Your task to perform on an android device: Search for lg ultragear on target.com, select the first entry, and add it to the cart. Image 0: 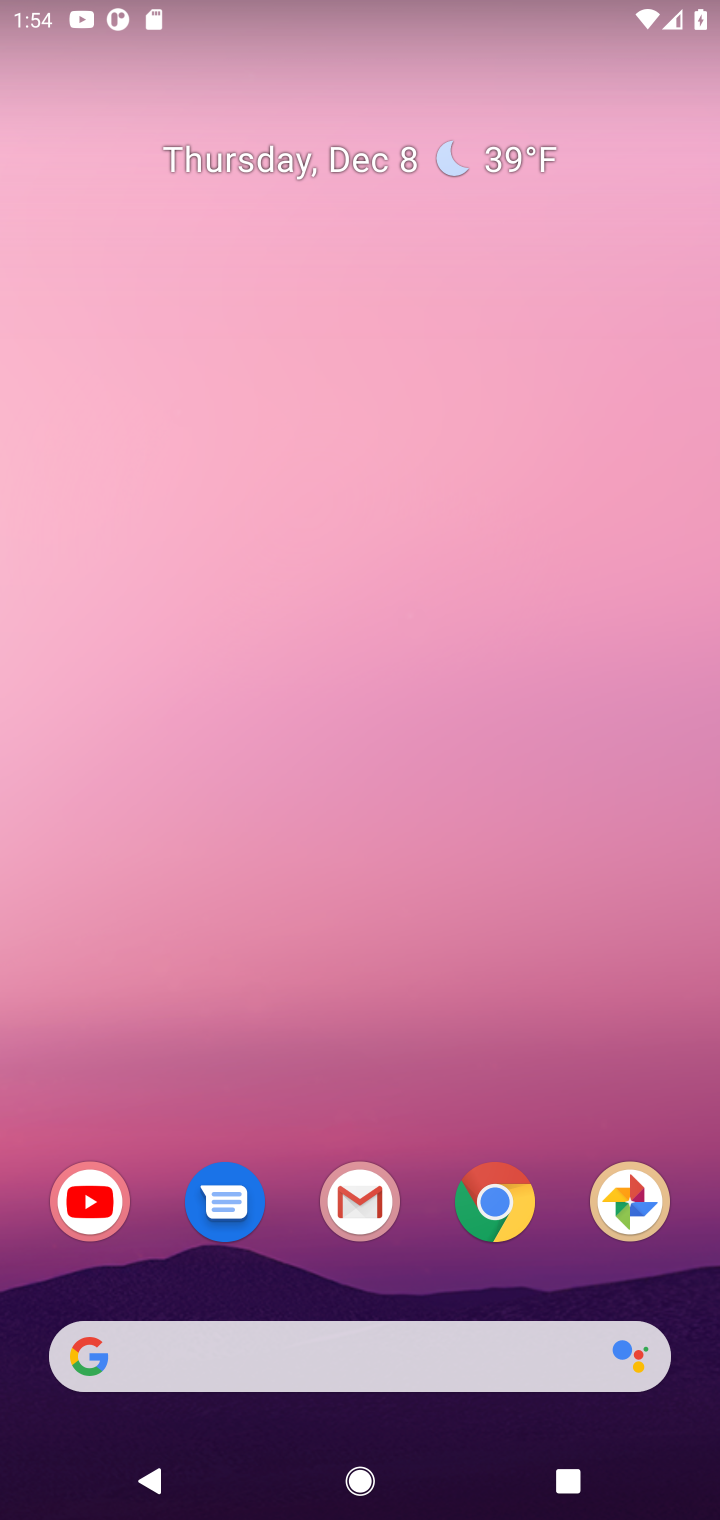
Step 0: click (501, 1172)
Your task to perform on an android device: Search for lg ultragear on target.com, select the first entry, and add it to the cart. Image 1: 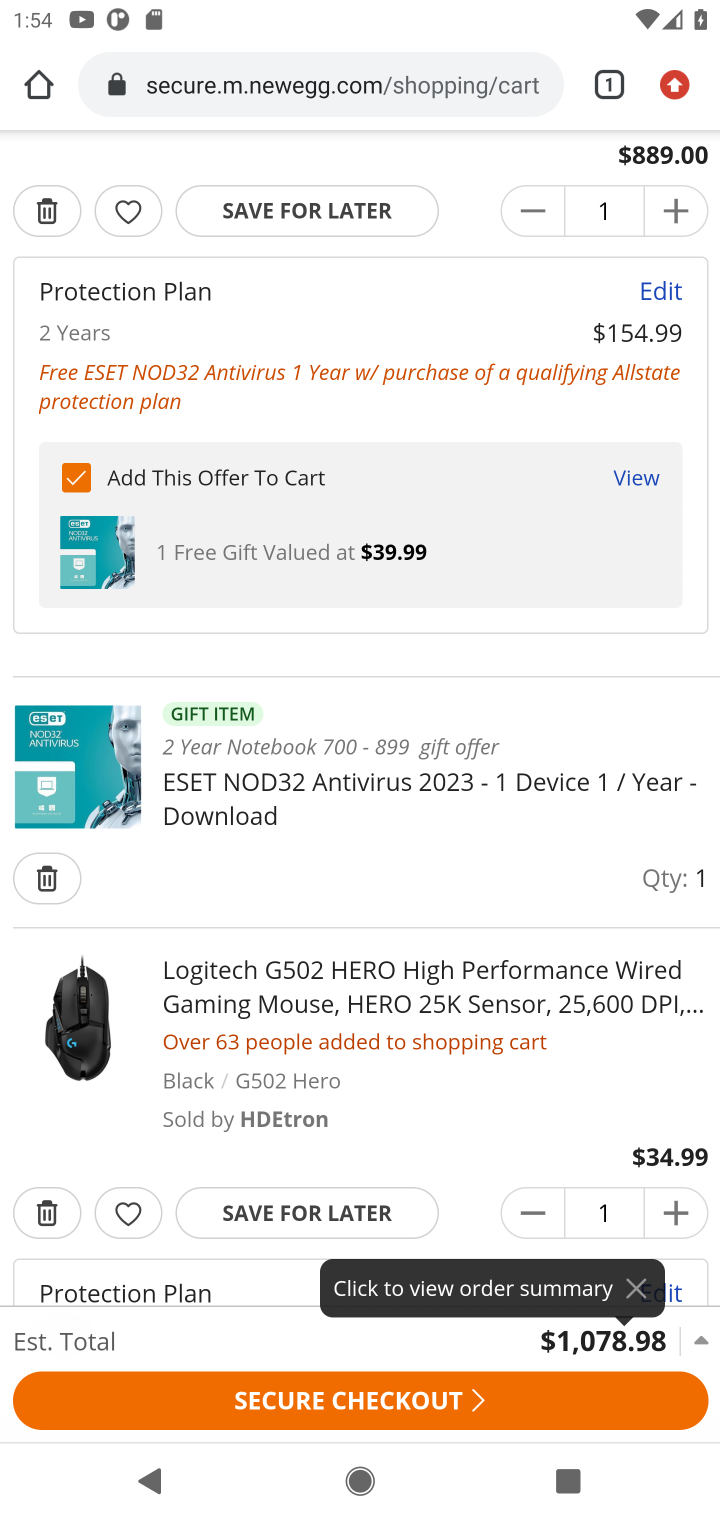
Step 1: click (384, 67)
Your task to perform on an android device: Search for lg ultragear on target.com, select the first entry, and add it to the cart. Image 2: 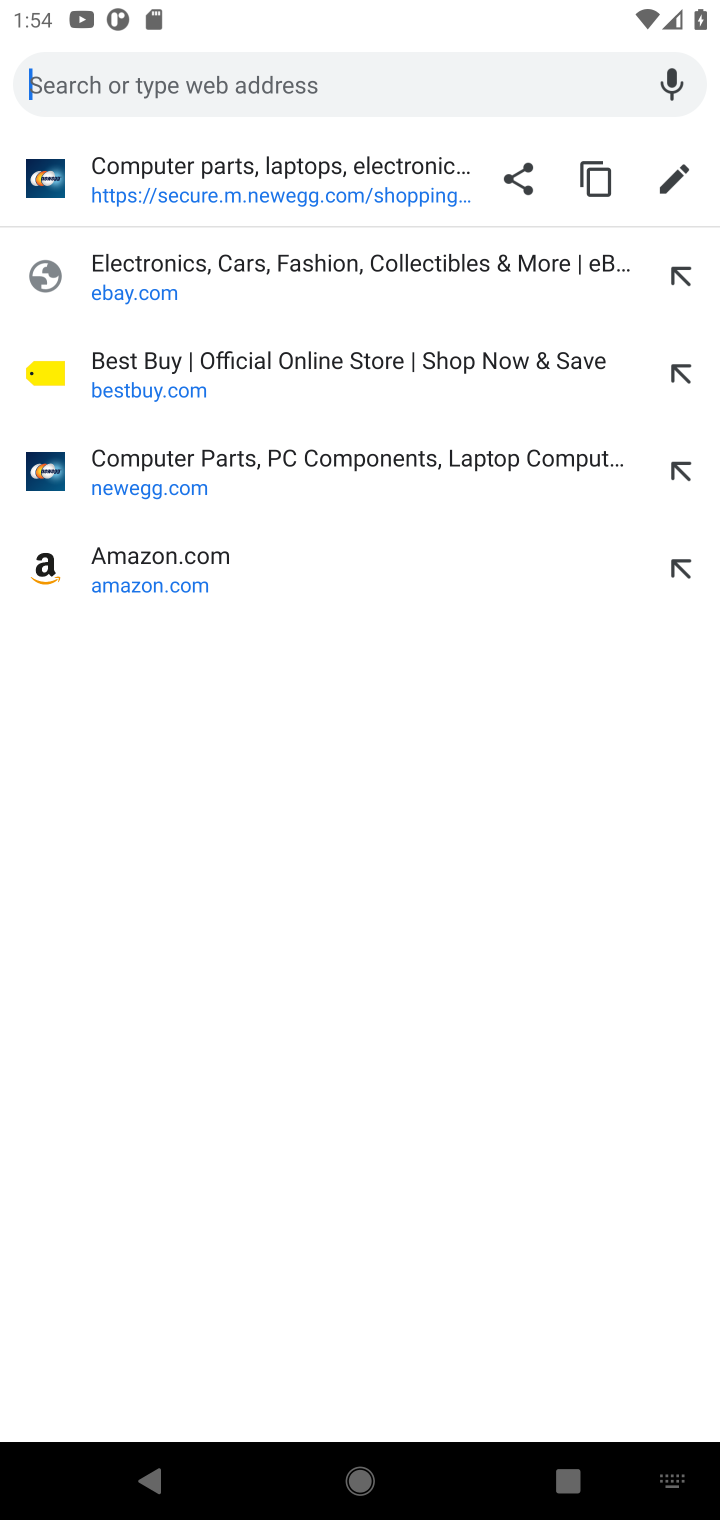
Step 2: type "target.com"
Your task to perform on an android device: Search for lg ultragear on target.com, select the first entry, and add it to the cart. Image 3: 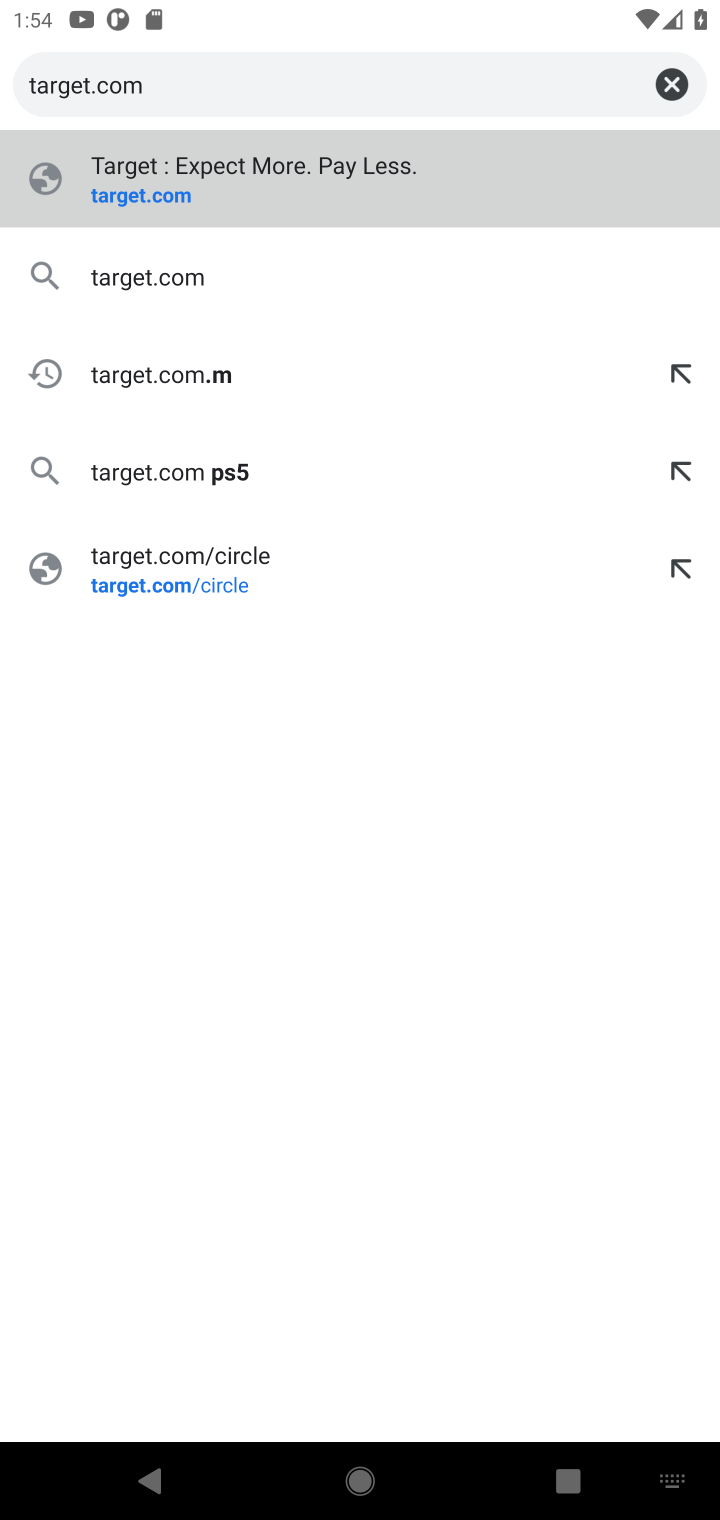
Step 3: press enter
Your task to perform on an android device: Search for lg ultragear on target.com, select the first entry, and add it to the cart. Image 4: 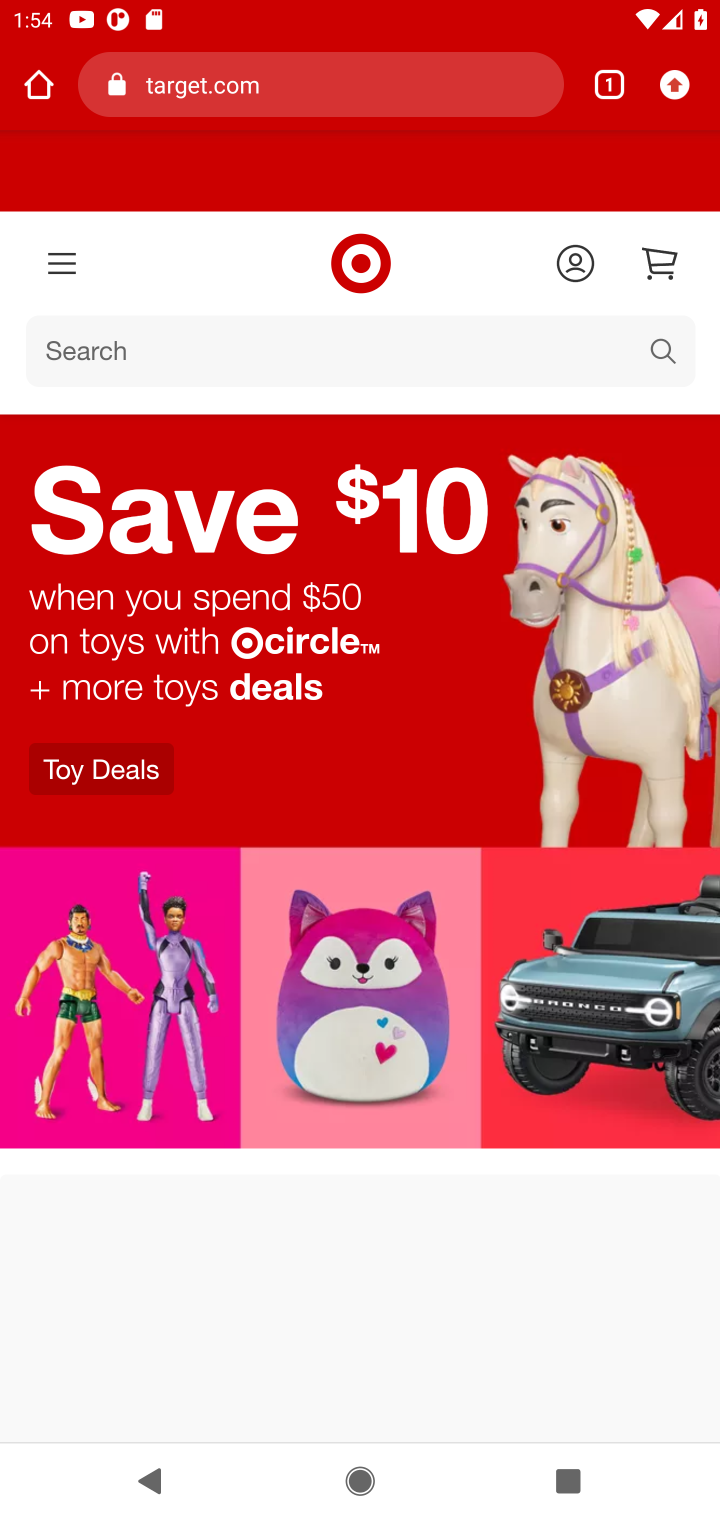
Step 4: click (662, 348)
Your task to perform on an android device: Search for lg ultragear on target.com, select the first entry, and add it to the cart. Image 5: 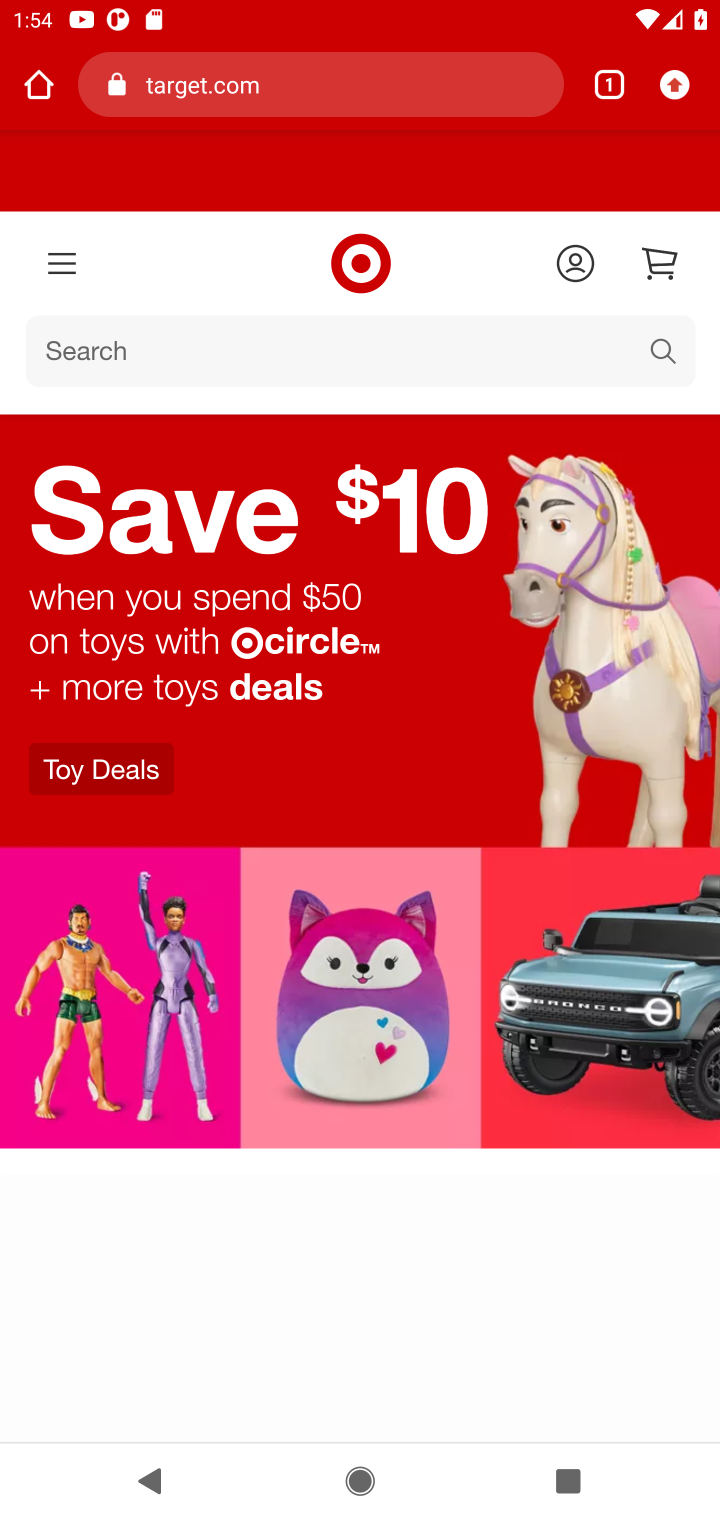
Step 5: type " lg ultragear"
Your task to perform on an android device: Search for lg ultragear on target.com, select the first entry, and add it to the cart. Image 6: 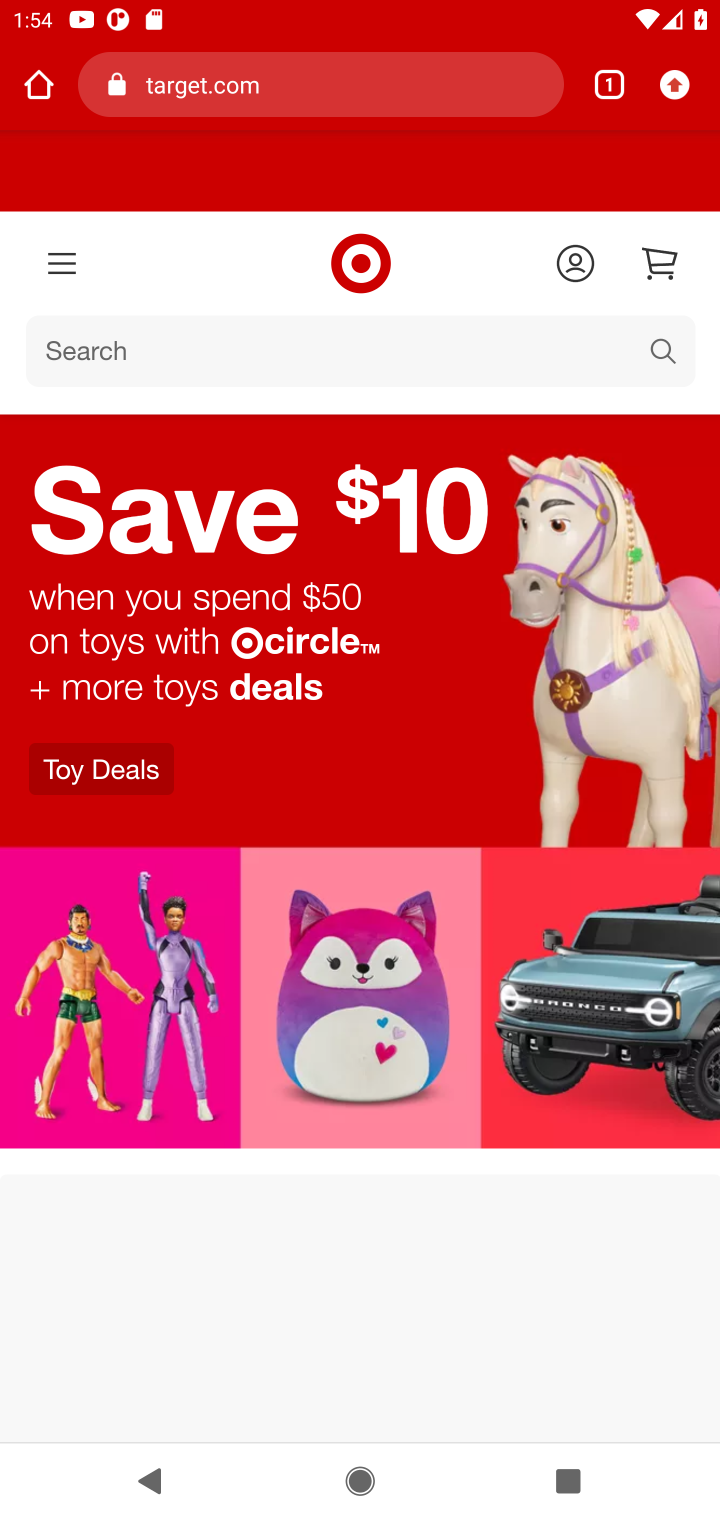
Step 6: press enter
Your task to perform on an android device: Search for lg ultragear on target.com, select the first entry, and add it to the cart. Image 7: 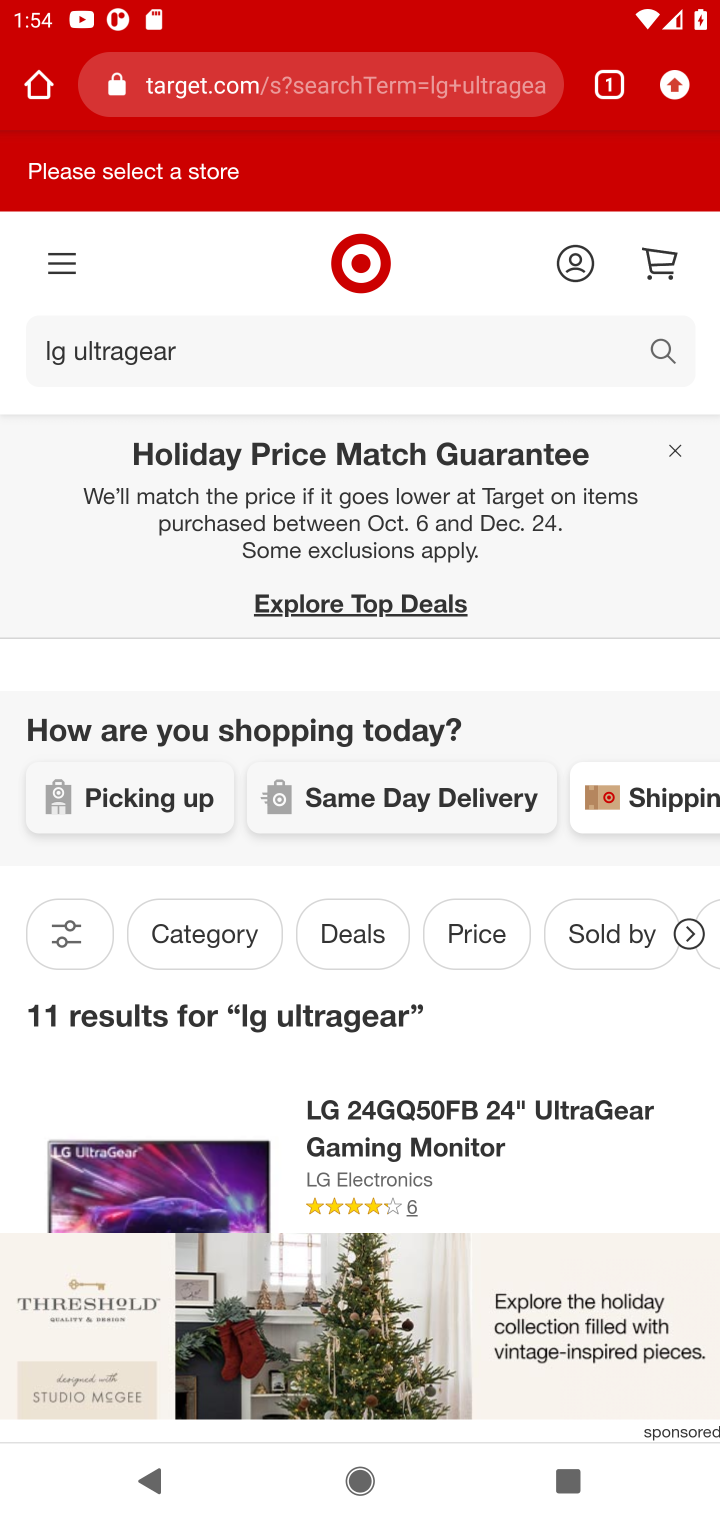
Step 7: drag from (440, 1160) to (411, 624)
Your task to perform on an android device: Search for lg ultragear on target.com, select the first entry, and add it to the cart. Image 8: 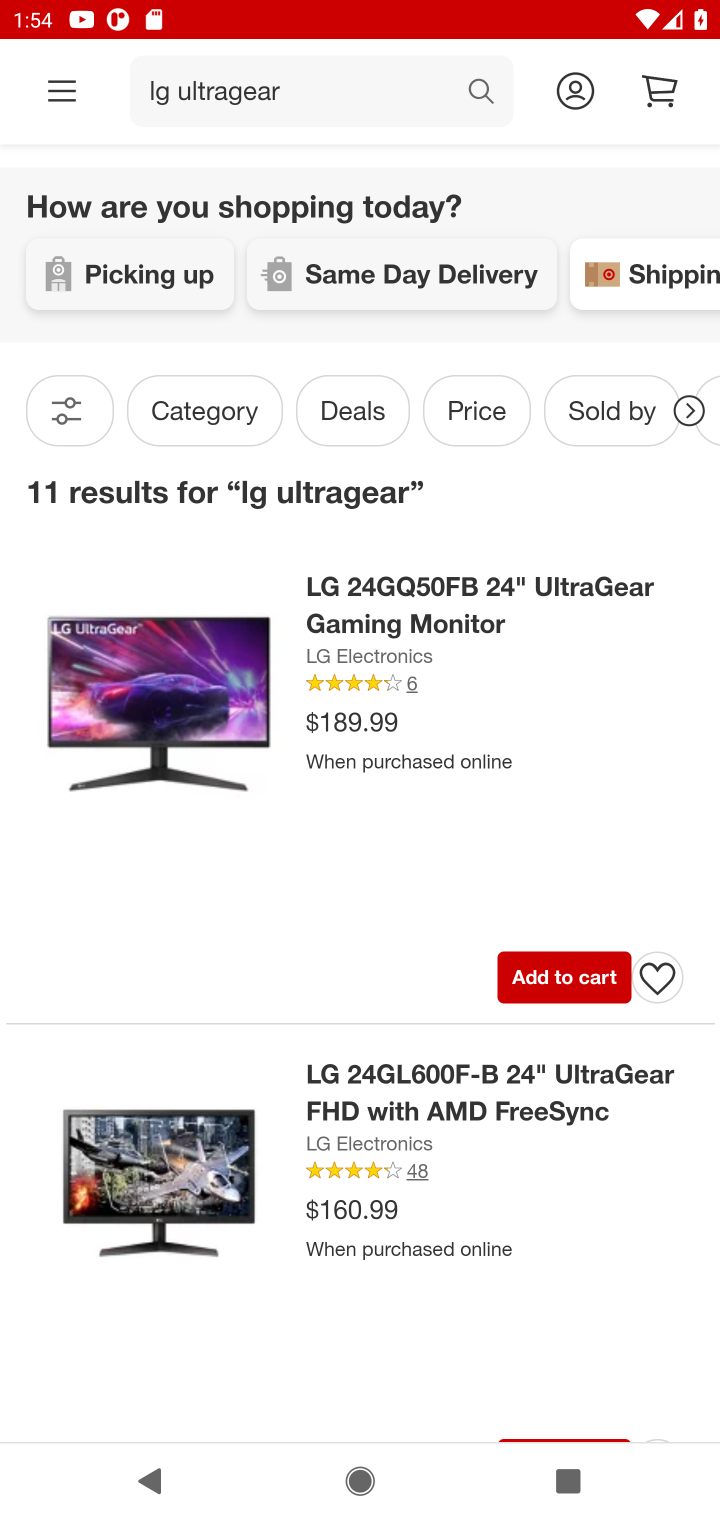
Step 8: click (153, 679)
Your task to perform on an android device: Search for lg ultragear on target.com, select the first entry, and add it to the cart. Image 9: 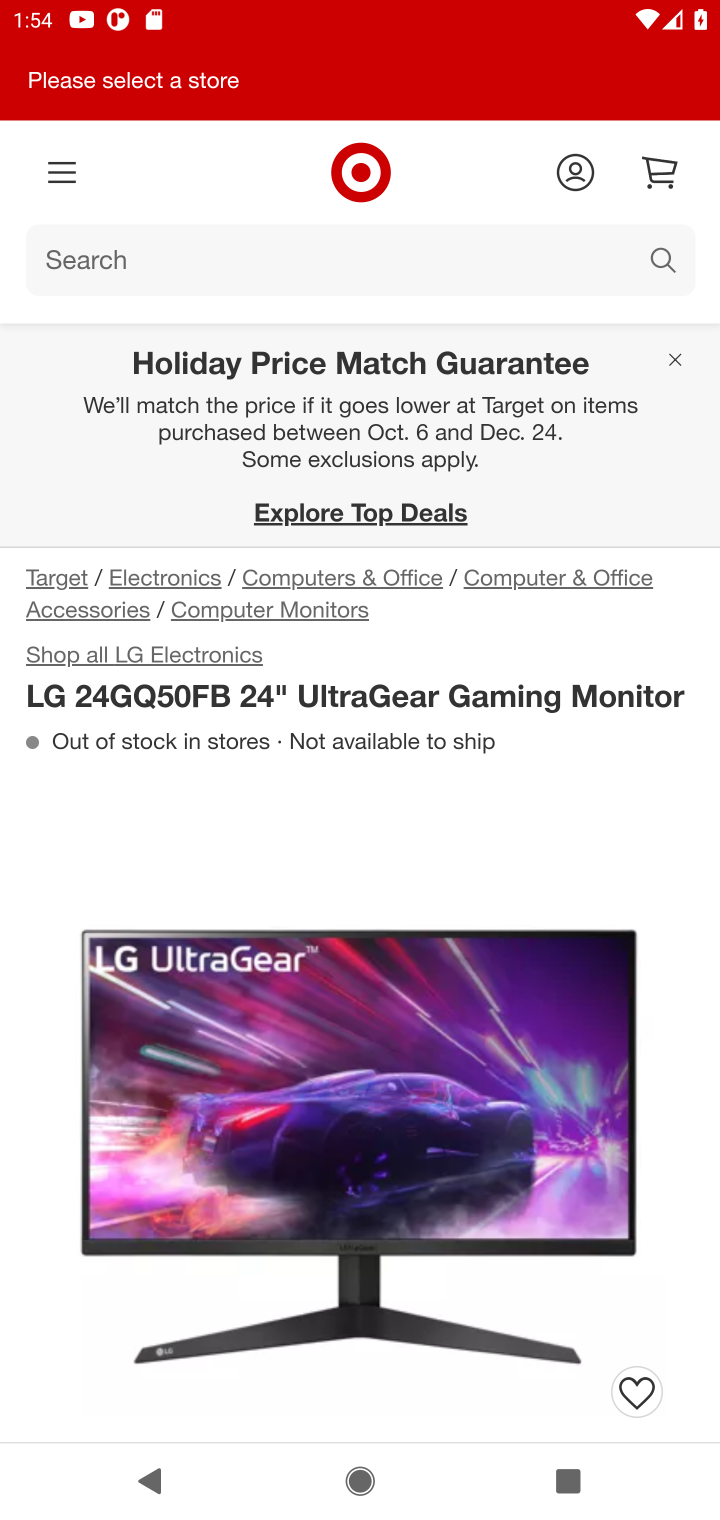
Step 9: drag from (481, 1090) to (522, 548)
Your task to perform on an android device: Search for lg ultragear on target.com, select the first entry, and add it to the cart. Image 10: 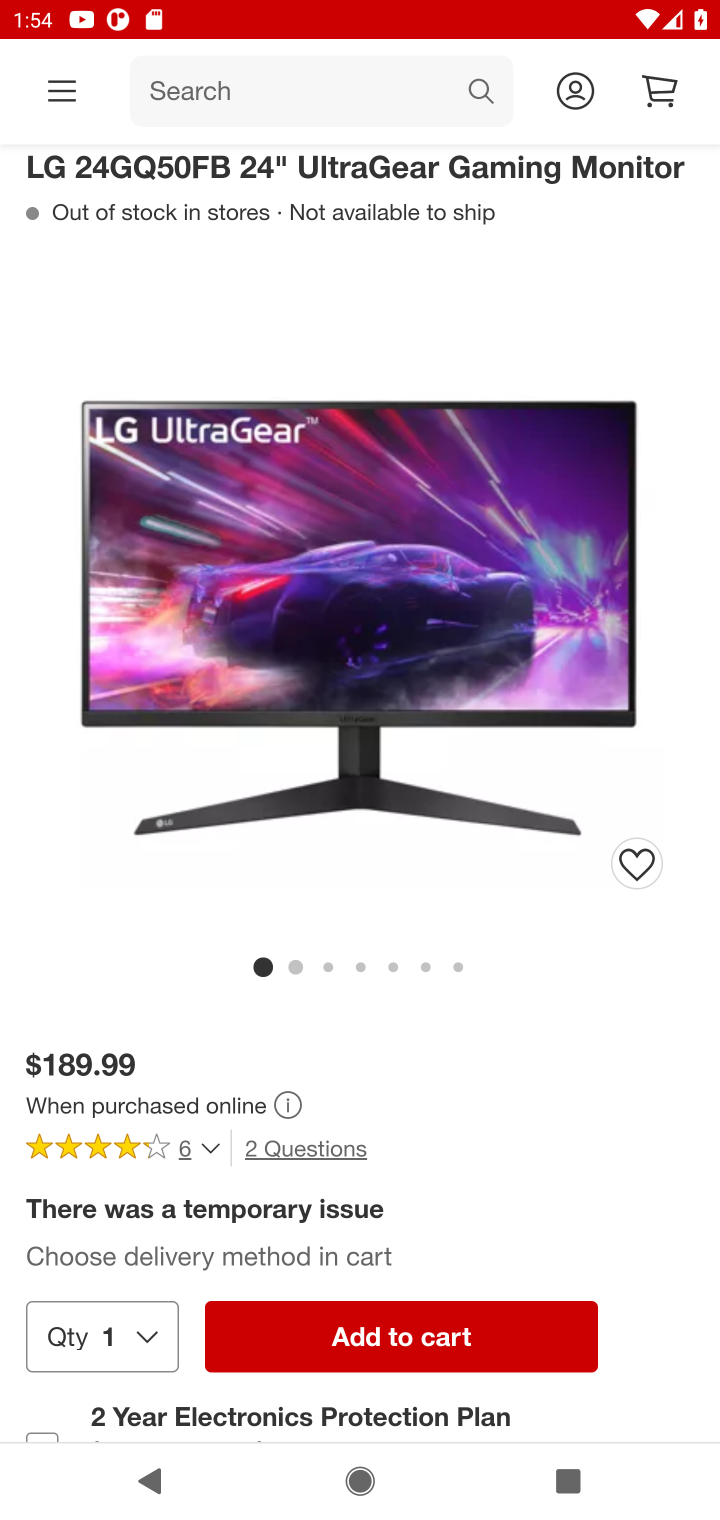
Step 10: click (452, 1335)
Your task to perform on an android device: Search for lg ultragear on target.com, select the first entry, and add it to the cart. Image 11: 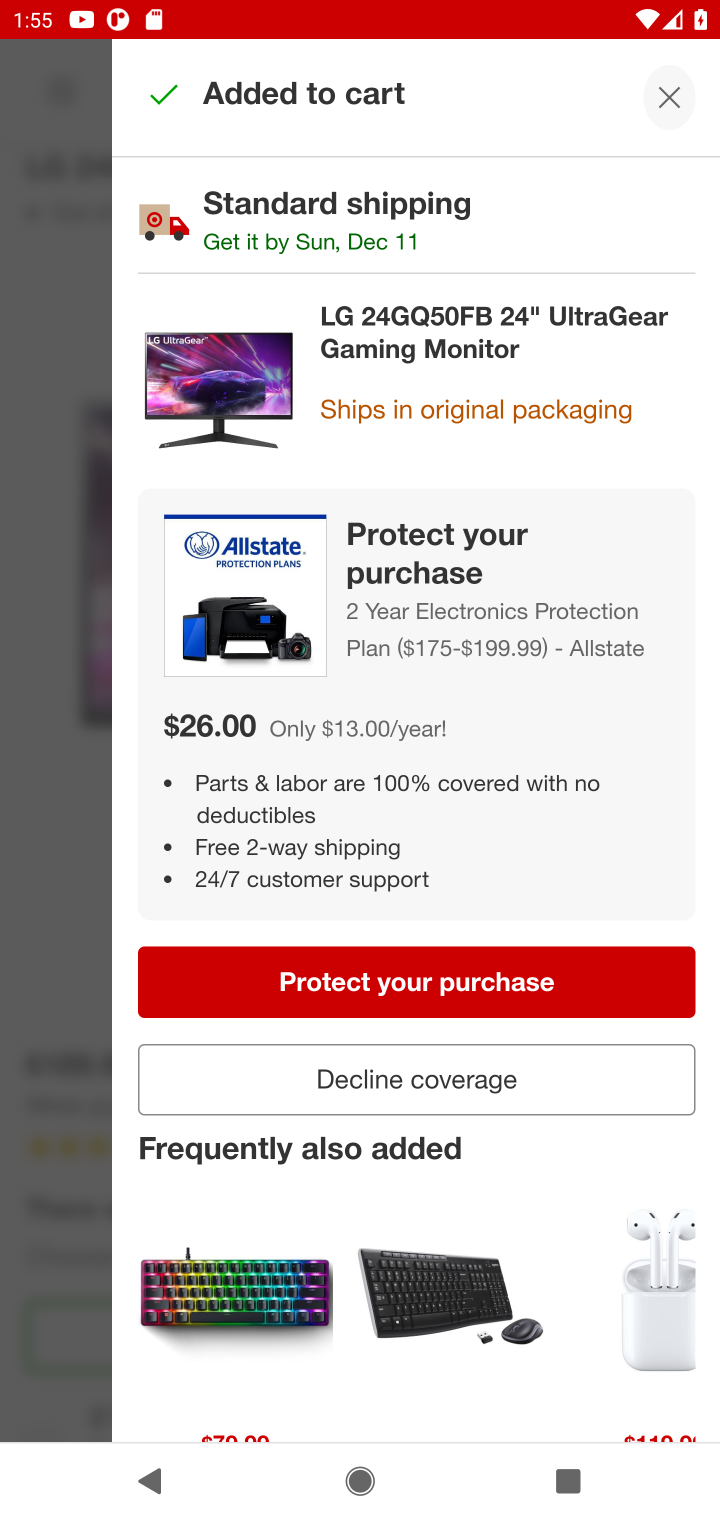
Step 11: task complete